Your task to perform on an android device: Go to Wikipedia Image 0: 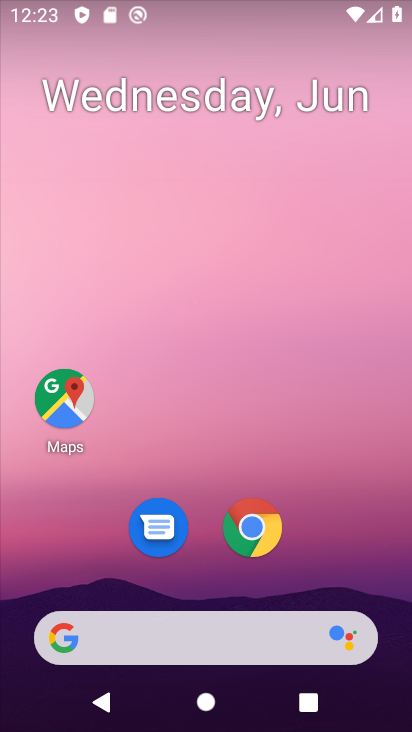
Step 0: click (256, 510)
Your task to perform on an android device: Go to Wikipedia Image 1: 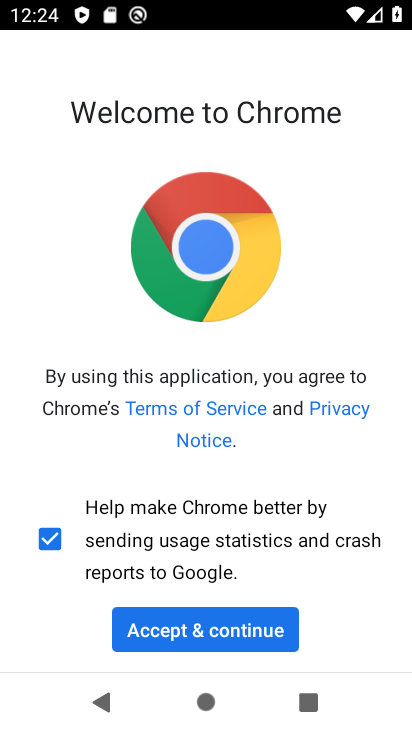
Step 1: click (208, 637)
Your task to perform on an android device: Go to Wikipedia Image 2: 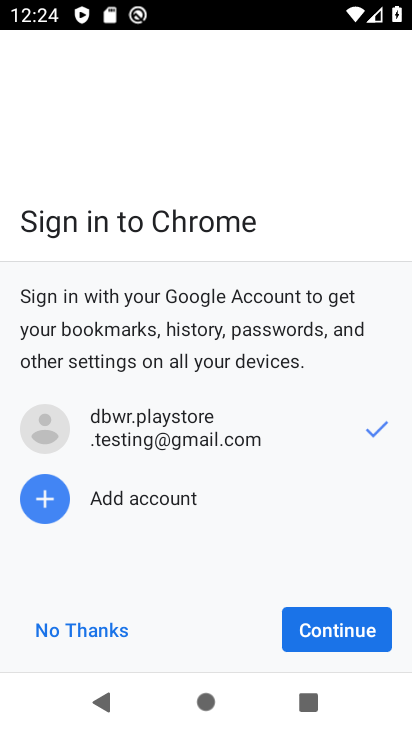
Step 2: click (312, 612)
Your task to perform on an android device: Go to Wikipedia Image 3: 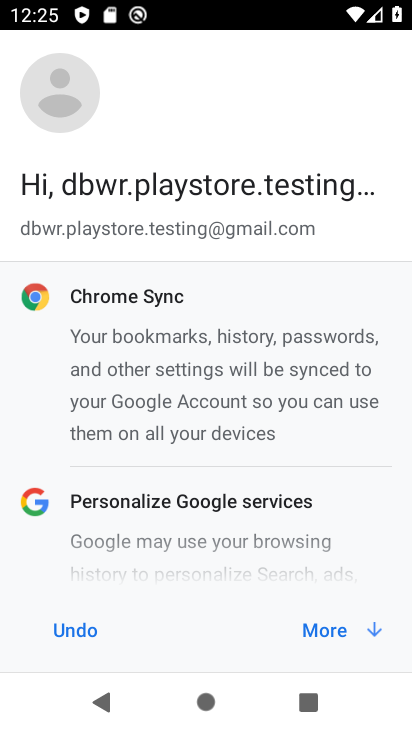
Step 3: click (322, 646)
Your task to perform on an android device: Go to Wikipedia Image 4: 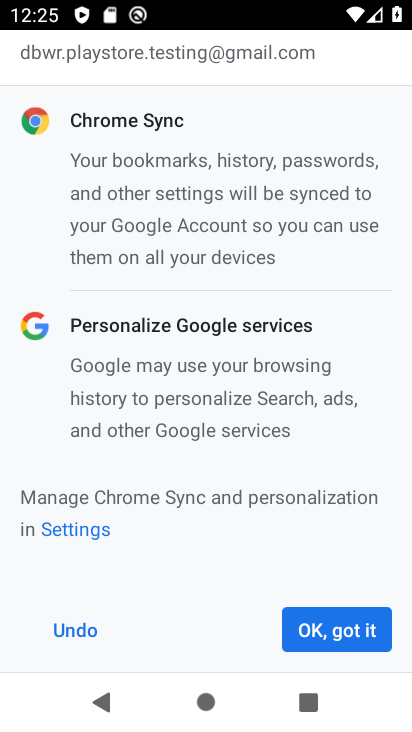
Step 4: click (322, 646)
Your task to perform on an android device: Go to Wikipedia Image 5: 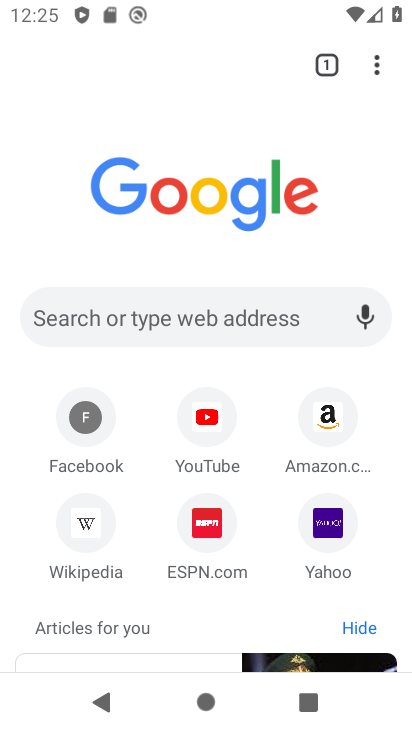
Step 5: click (71, 561)
Your task to perform on an android device: Go to Wikipedia Image 6: 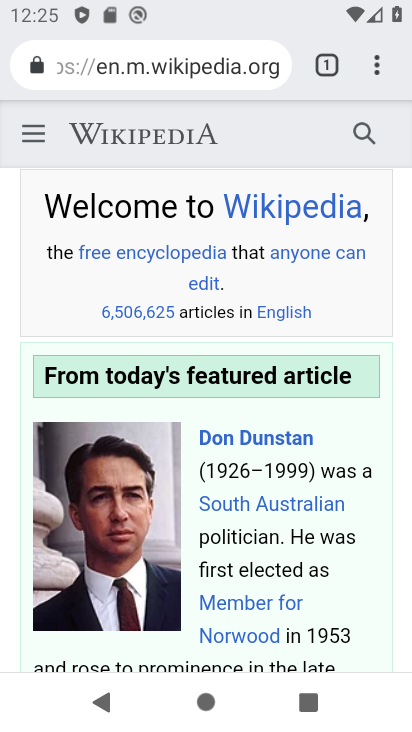
Step 6: task complete